Your task to perform on an android device: toggle data saver in the chrome app Image 0: 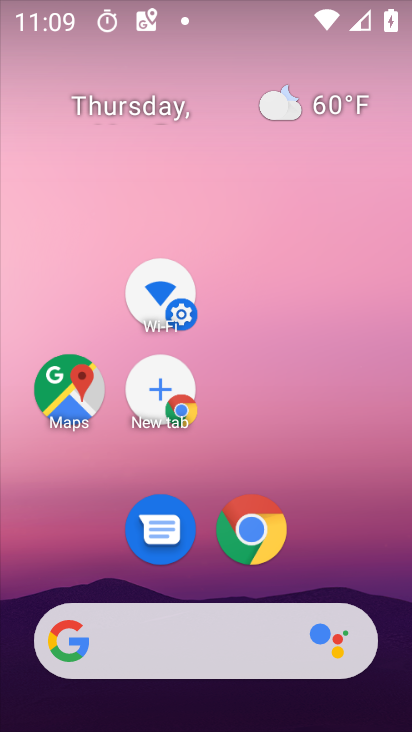
Step 0: drag from (365, 575) to (205, 301)
Your task to perform on an android device: toggle data saver in the chrome app Image 1: 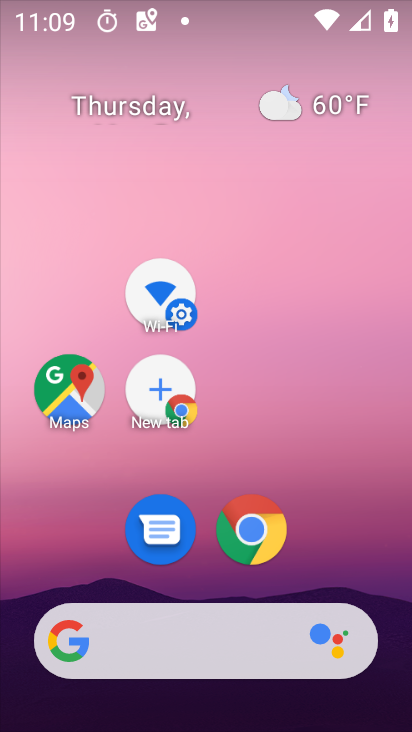
Step 1: drag from (323, 576) to (223, 219)
Your task to perform on an android device: toggle data saver in the chrome app Image 2: 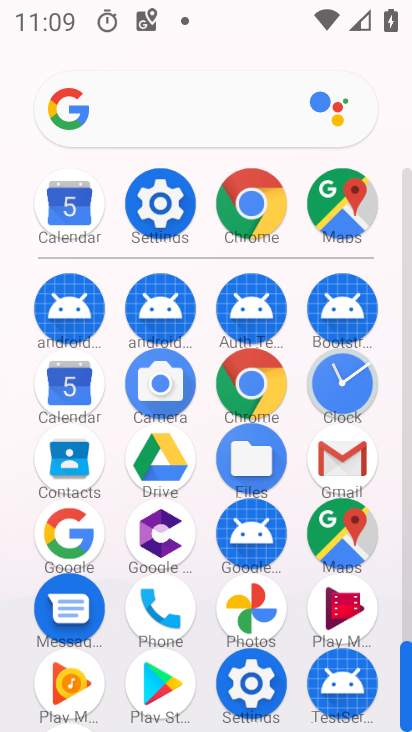
Step 2: click (251, 217)
Your task to perform on an android device: toggle data saver in the chrome app Image 3: 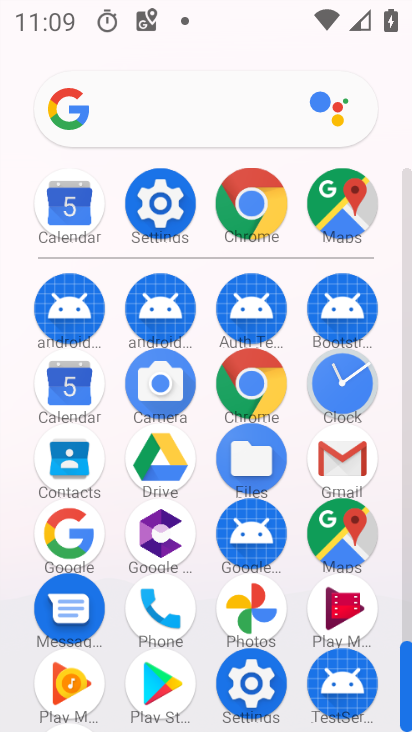
Step 3: click (253, 218)
Your task to perform on an android device: toggle data saver in the chrome app Image 4: 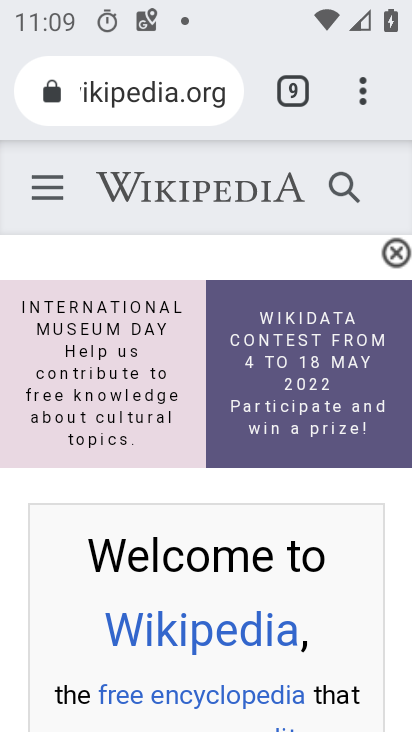
Step 4: drag from (358, 96) to (125, 561)
Your task to perform on an android device: toggle data saver in the chrome app Image 5: 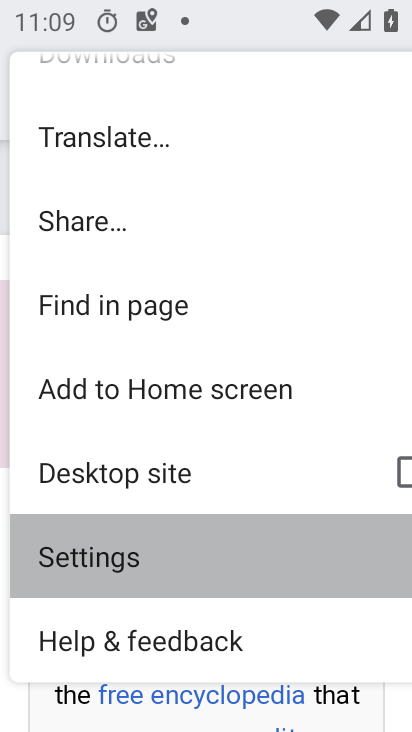
Step 5: click (126, 551)
Your task to perform on an android device: toggle data saver in the chrome app Image 6: 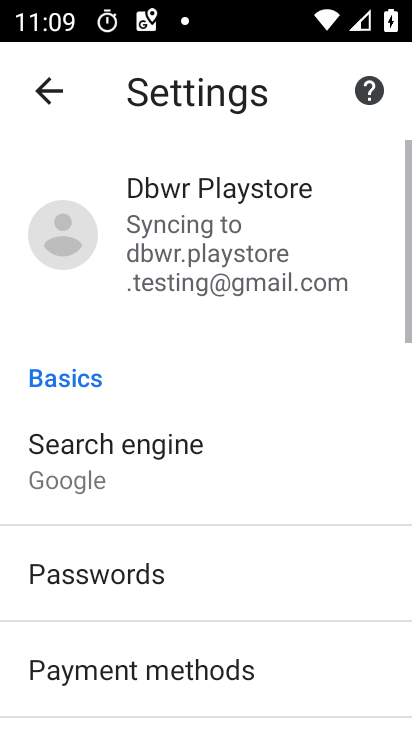
Step 6: drag from (202, 571) to (148, 129)
Your task to perform on an android device: toggle data saver in the chrome app Image 7: 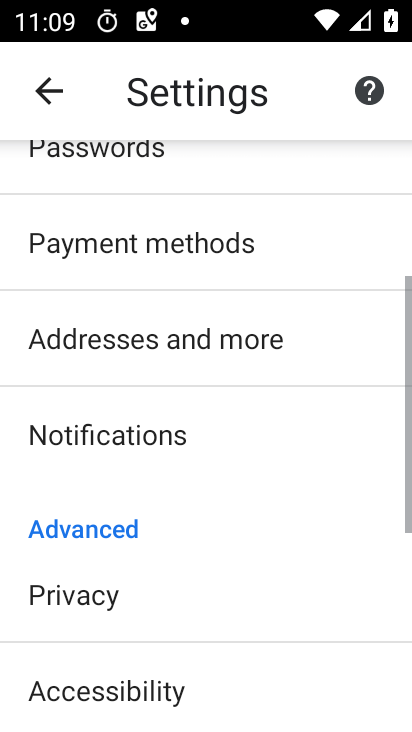
Step 7: drag from (264, 433) to (205, 175)
Your task to perform on an android device: toggle data saver in the chrome app Image 8: 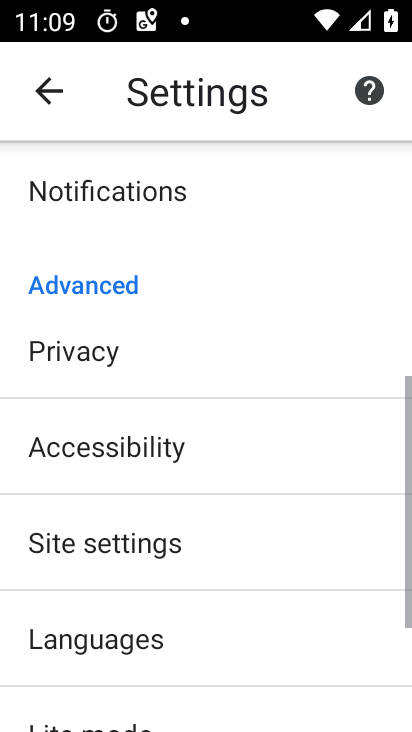
Step 8: drag from (259, 525) to (210, 241)
Your task to perform on an android device: toggle data saver in the chrome app Image 9: 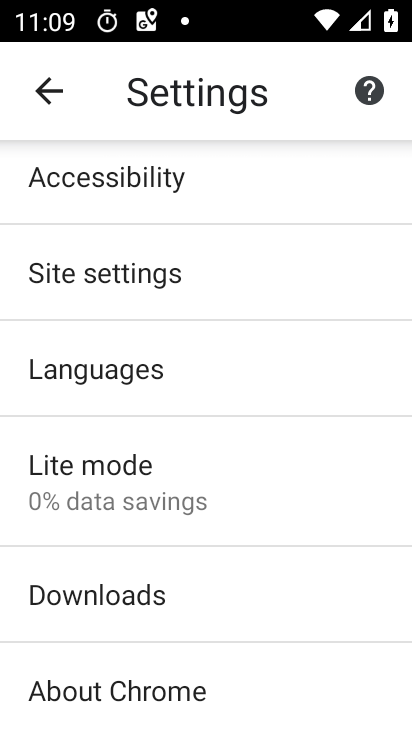
Step 9: click (97, 467)
Your task to perform on an android device: toggle data saver in the chrome app Image 10: 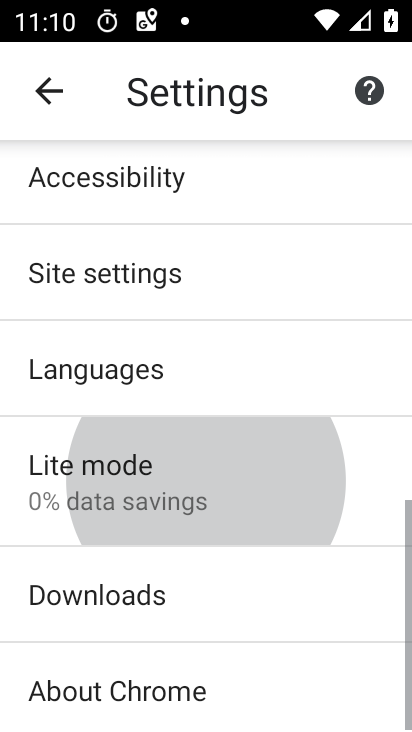
Step 10: click (97, 467)
Your task to perform on an android device: toggle data saver in the chrome app Image 11: 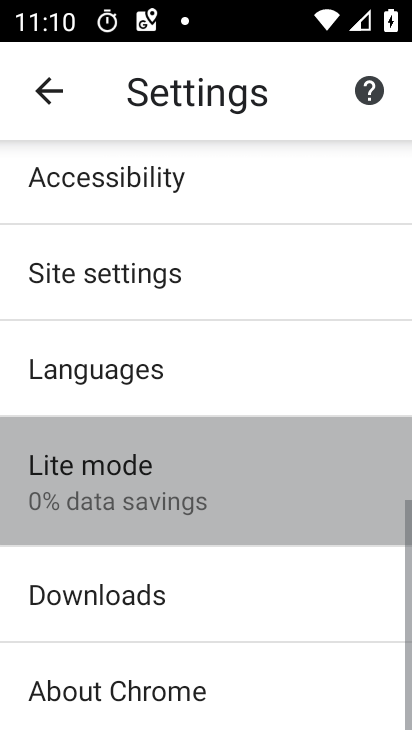
Step 11: click (97, 467)
Your task to perform on an android device: toggle data saver in the chrome app Image 12: 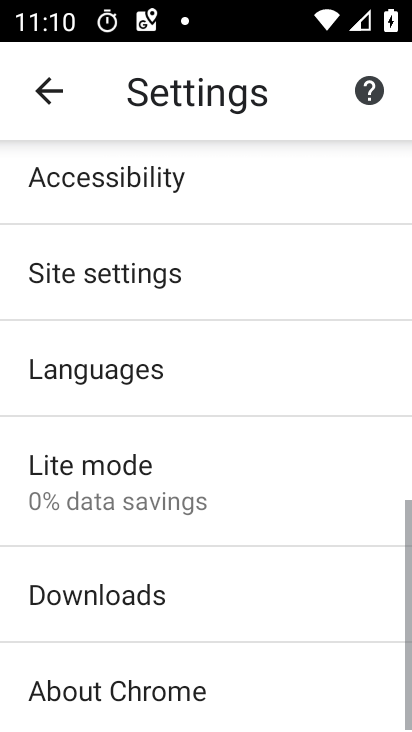
Step 12: click (97, 467)
Your task to perform on an android device: toggle data saver in the chrome app Image 13: 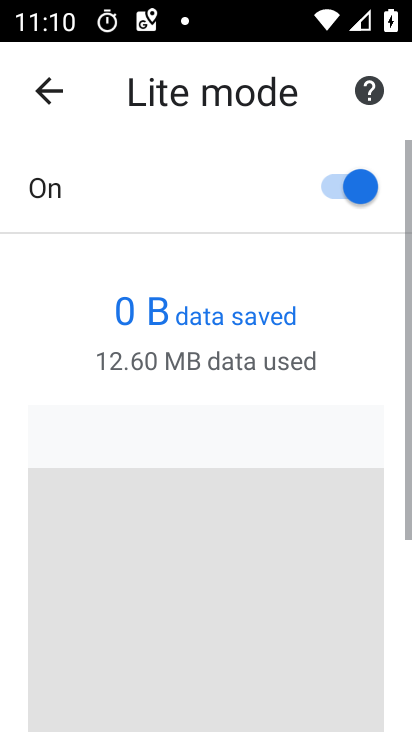
Step 13: task complete